Your task to perform on an android device: check battery use Image 0: 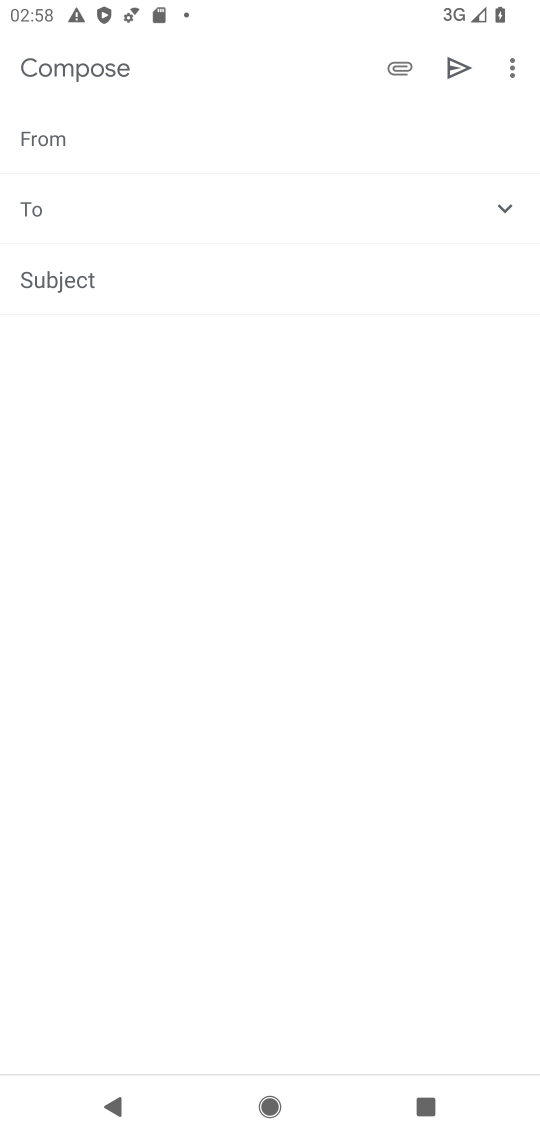
Step 0: press home button
Your task to perform on an android device: check battery use Image 1: 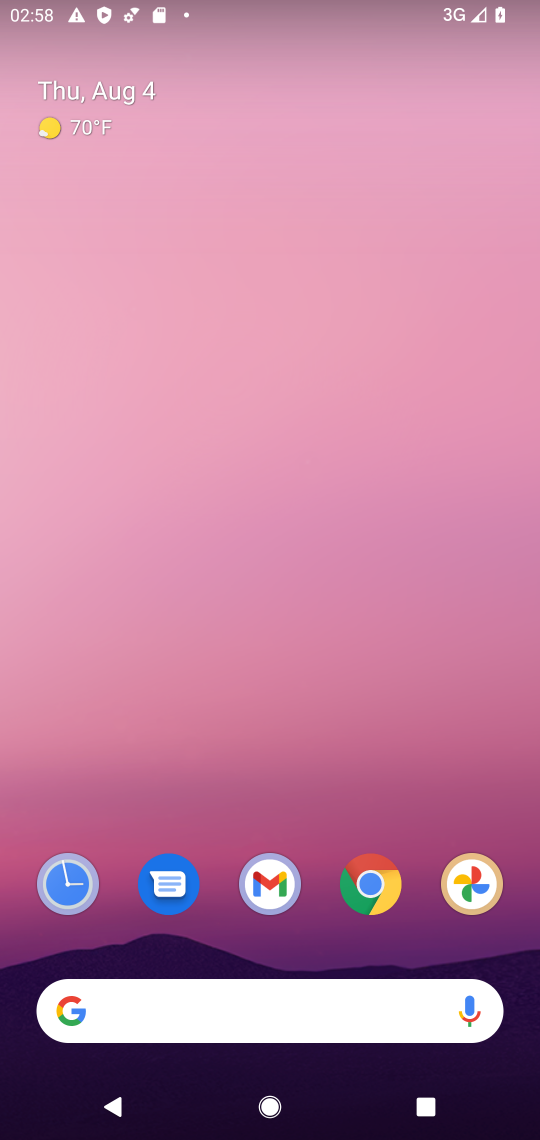
Step 1: drag from (319, 696) to (314, 154)
Your task to perform on an android device: check battery use Image 2: 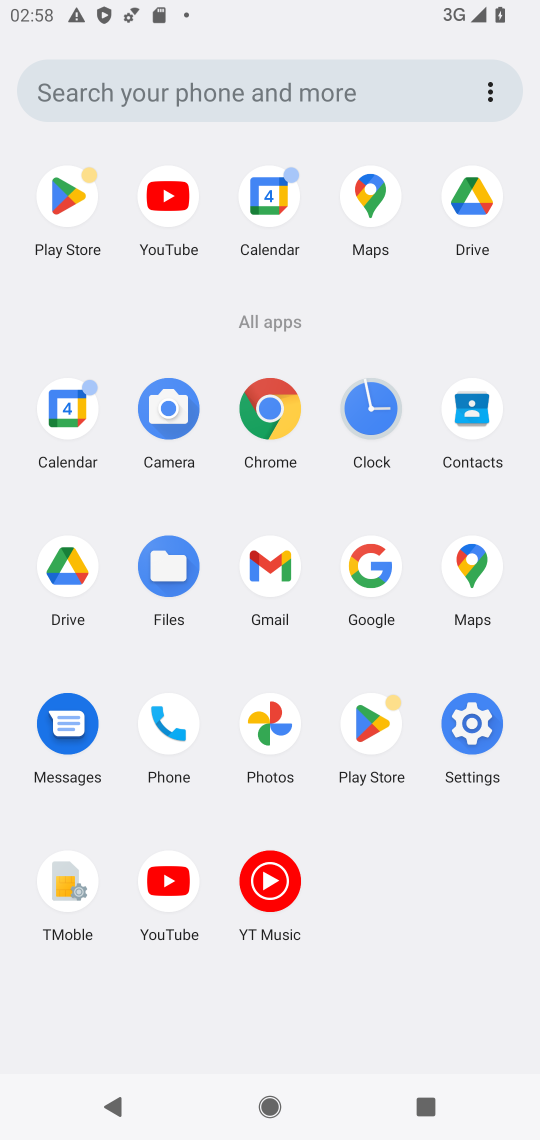
Step 2: click (486, 730)
Your task to perform on an android device: check battery use Image 3: 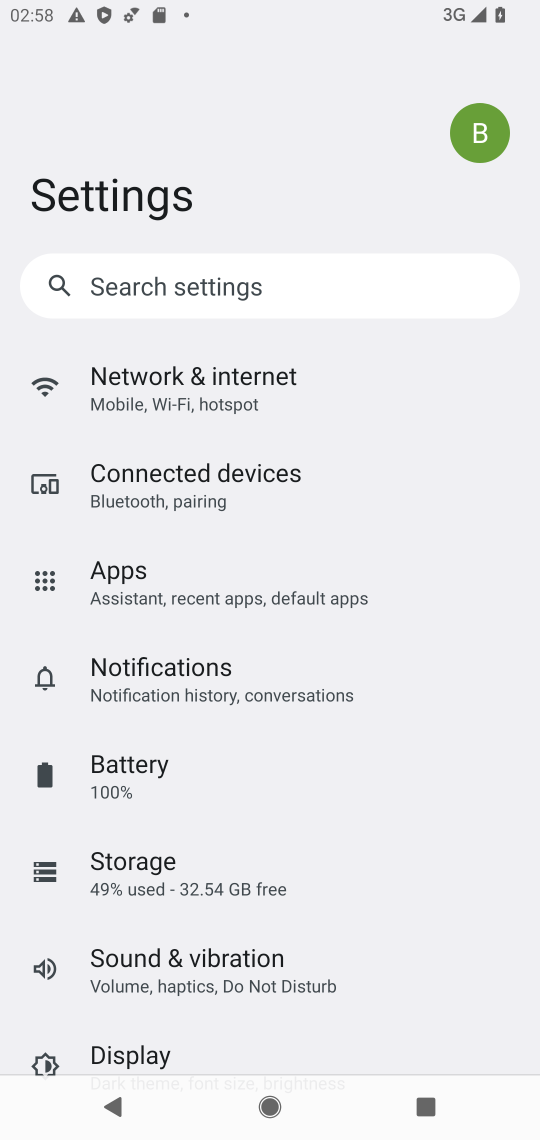
Step 3: drag from (416, 859) to (441, 760)
Your task to perform on an android device: check battery use Image 4: 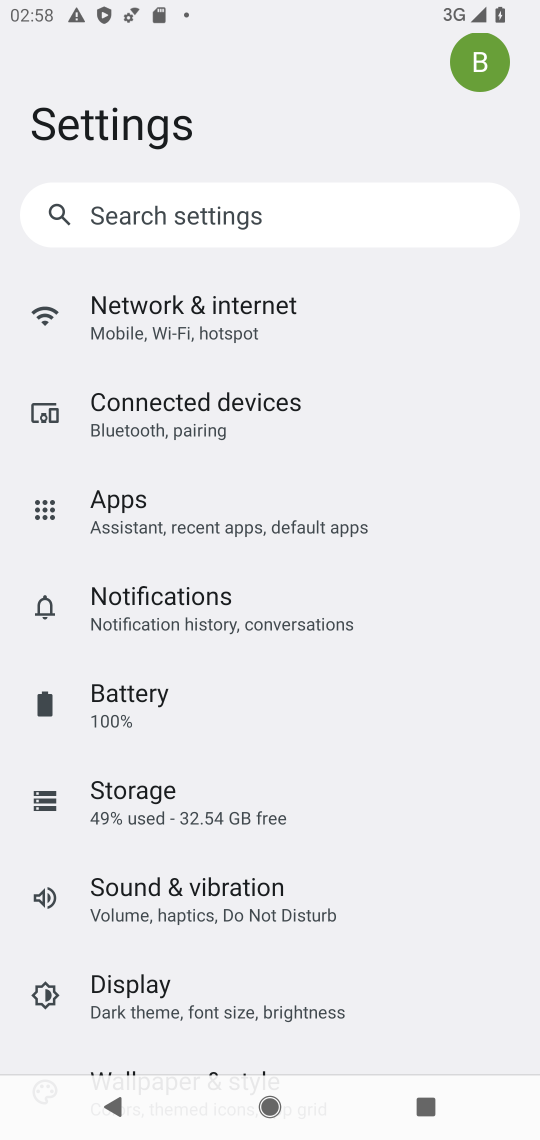
Step 4: drag from (467, 931) to (472, 746)
Your task to perform on an android device: check battery use Image 5: 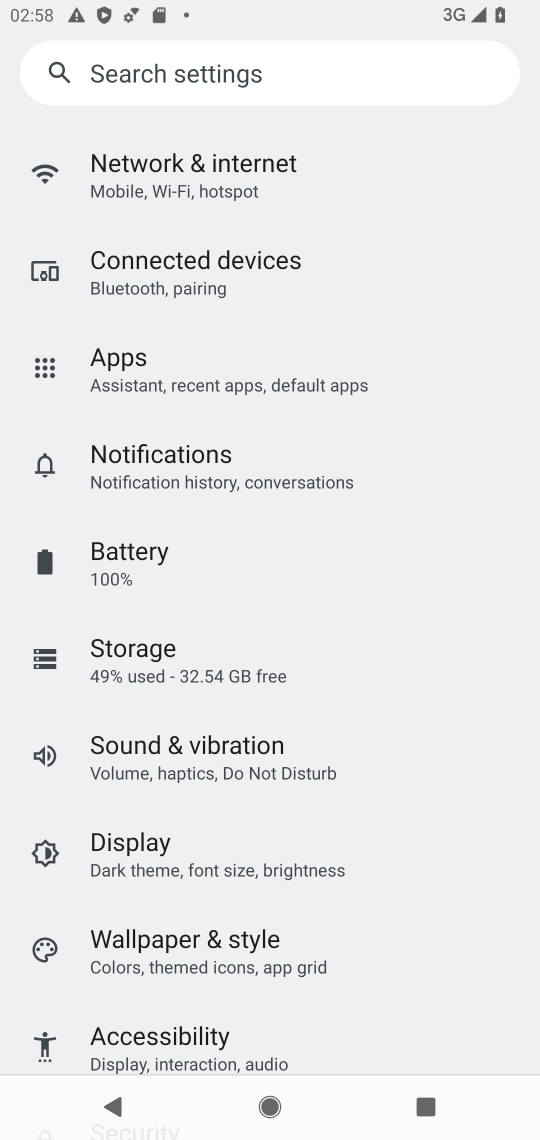
Step 5: drag from (446, 965) to (446, 833)
Your task to perform on an android device: check battery use Image 6: 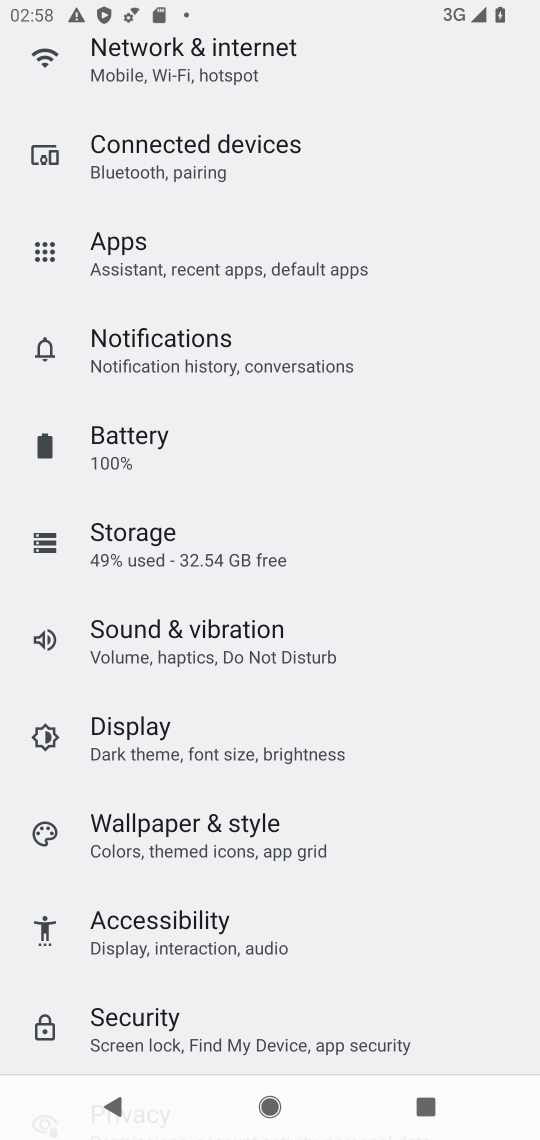
Step 6: drag from (434, 929) to (430, 782)
Your task to perform on an android device: check battery use Image 7: 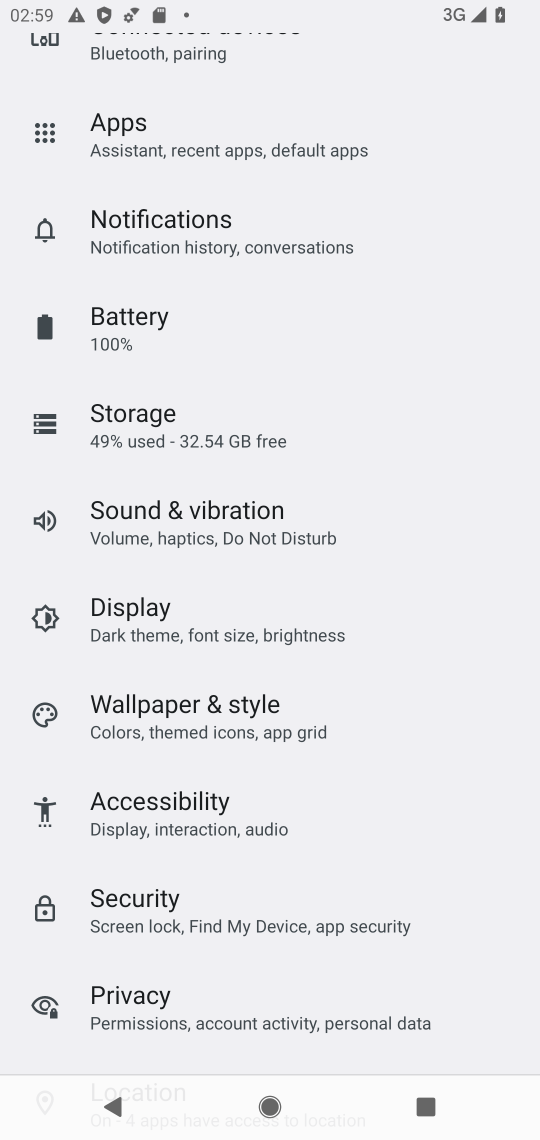
Step 7: drag from (438, 833) to (429, 652)
Your task to perform on an android device: check battery use Image 8: 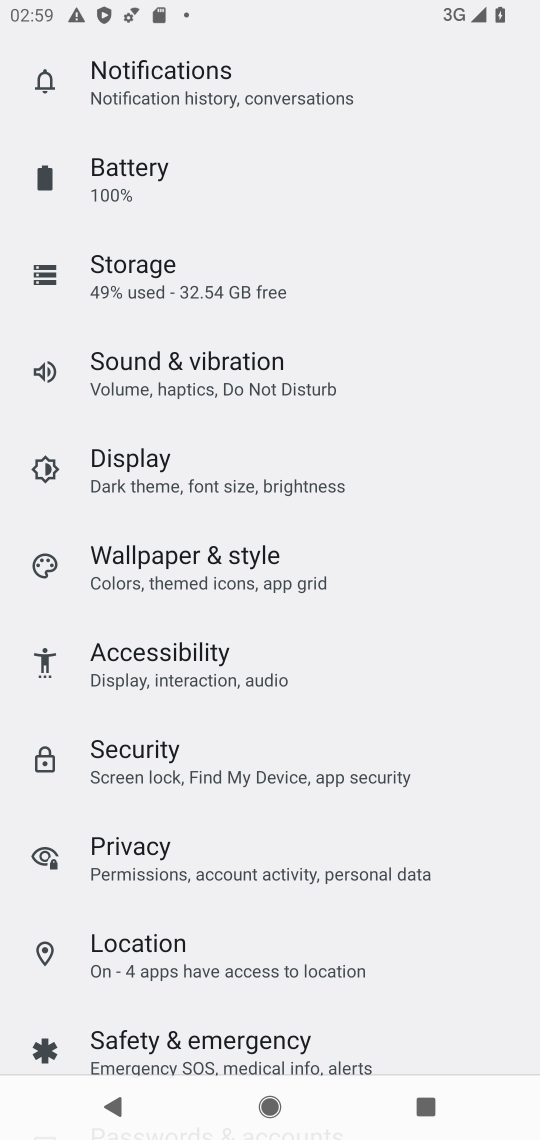
Step 8: drag from (473, 930) to (470, 720)
Your task to perform on an android device: check battery use Image 9: 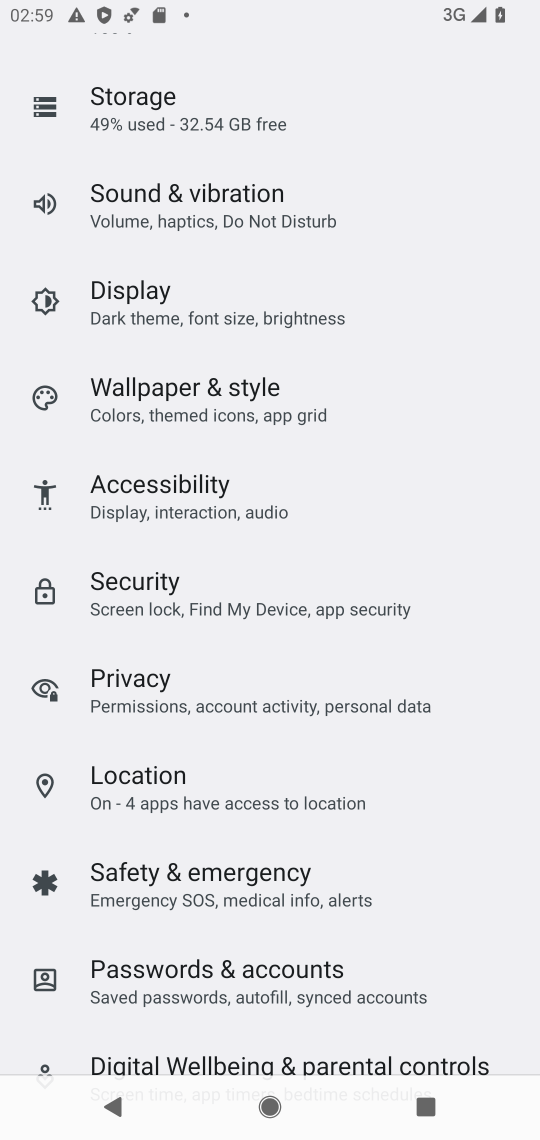
Step 9: drag from (443, 963) to (465, 737)
Your task to perform on an android device: check battery use Image 10: 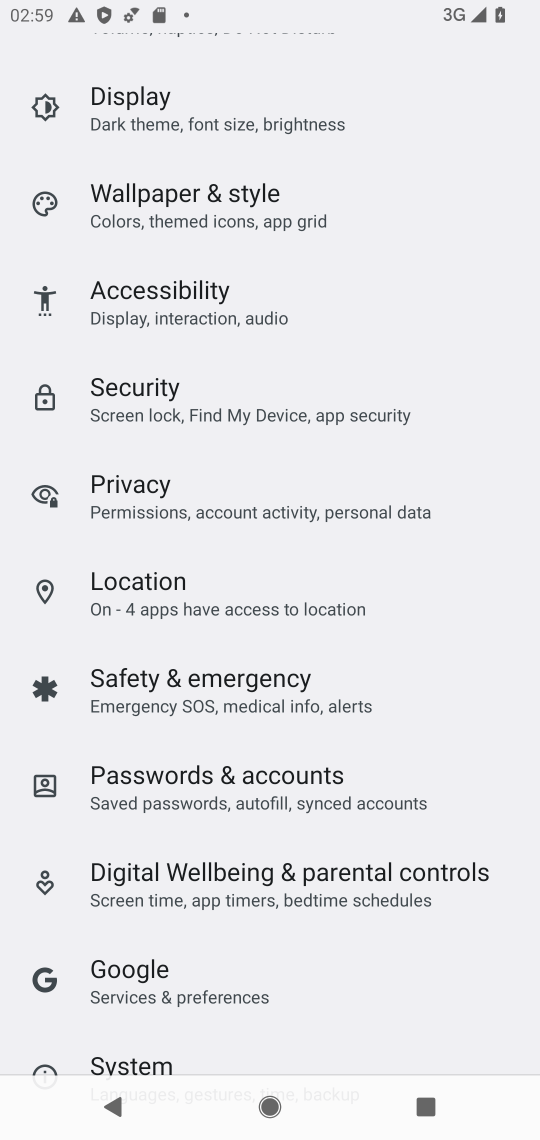
Step 10: drag from (479, 548) to (474, 743)
Your task to perform on an android device: check battery use Image 11: 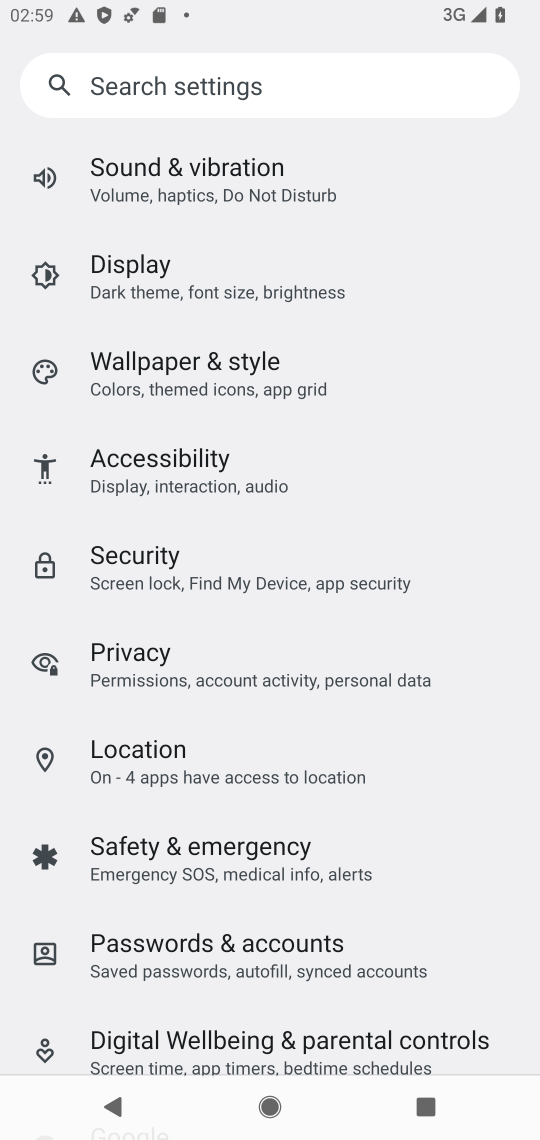
Step 11: drag from (485, 577) to (486, 787)
Your task to perform on an android device: check battery use Image 12: 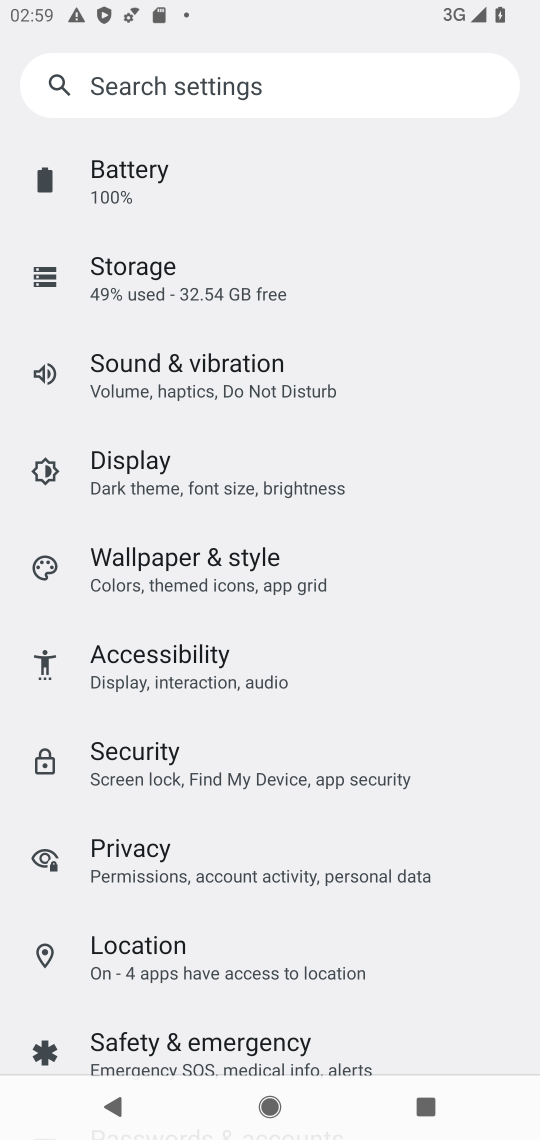
Step 12: drag from (463, 557) to (453, 736)
Your task to perform on an android device: check battery use Image 13: 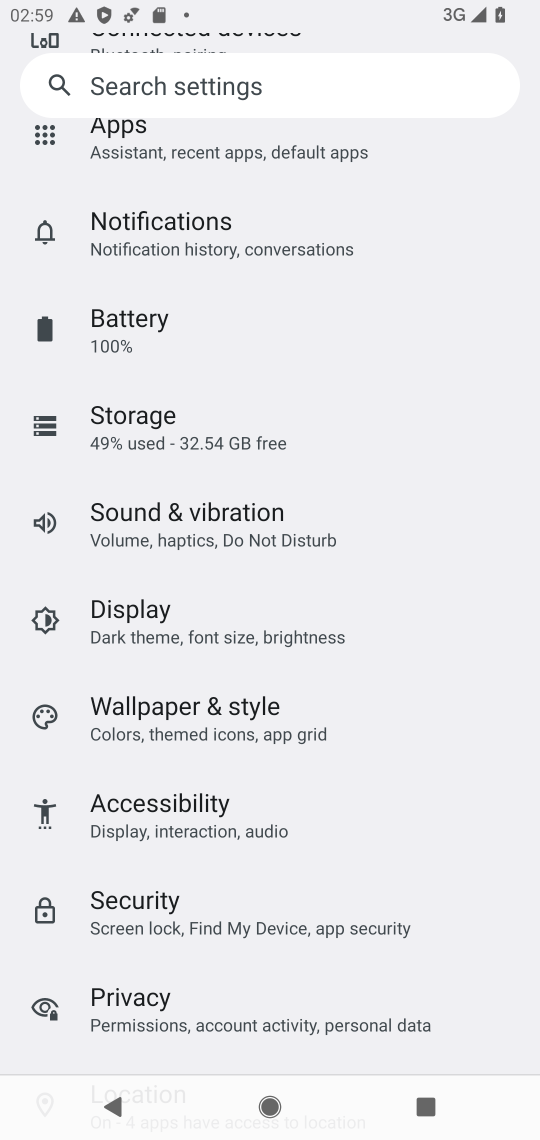
Step 13: drag from (440, 564) to (428, 727)
Your task to perform on an android device: check battery use Image 14: 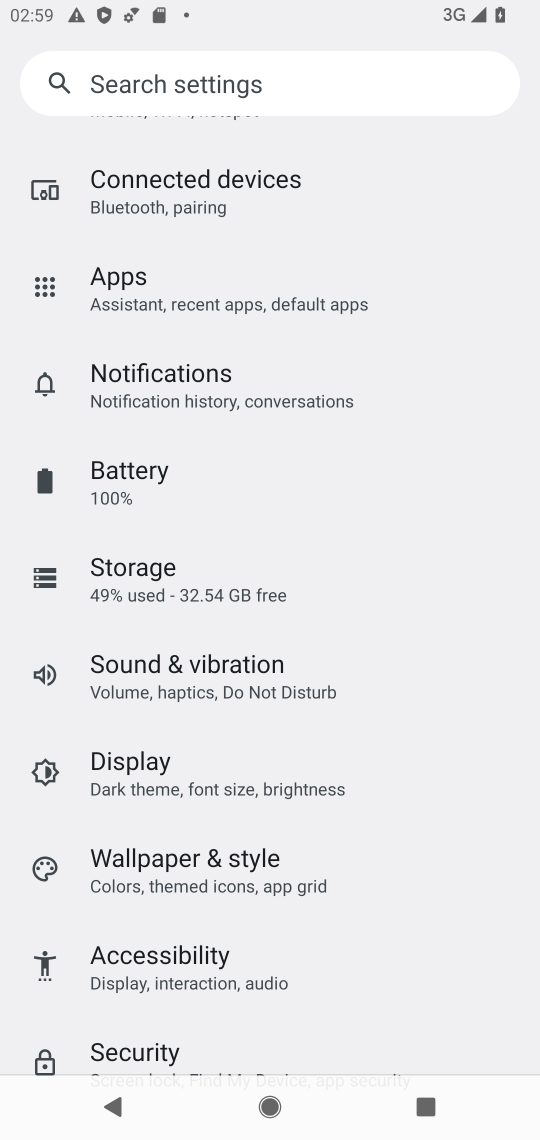
Step 14: drag from (431, 460) to (445, 742)
Your task to perform on an android device: check battery use Image 15: 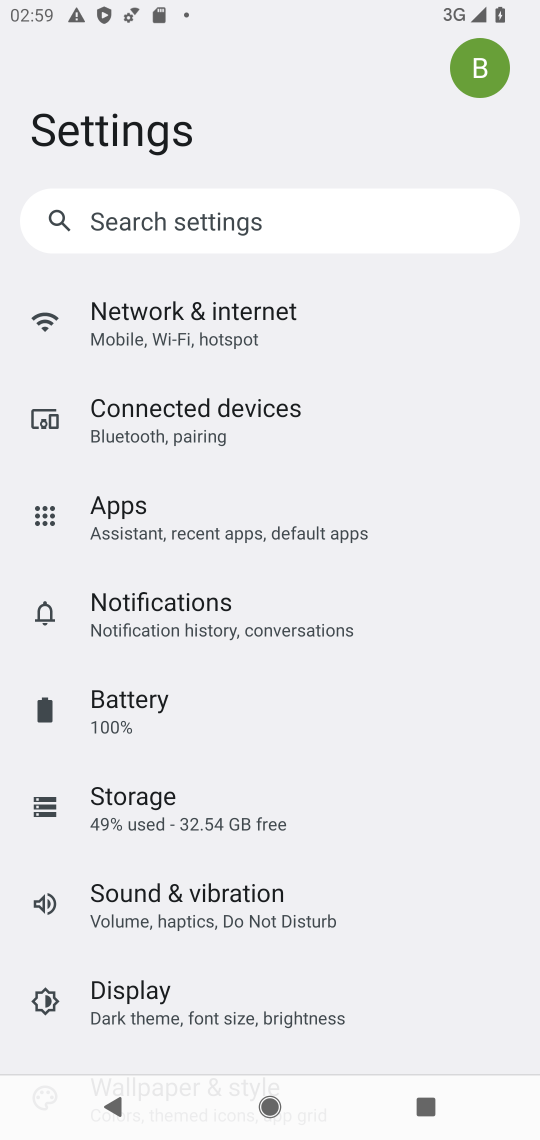
Step 15: click (219, 694)
Your task to perform on an android device: check battery use Image 16: 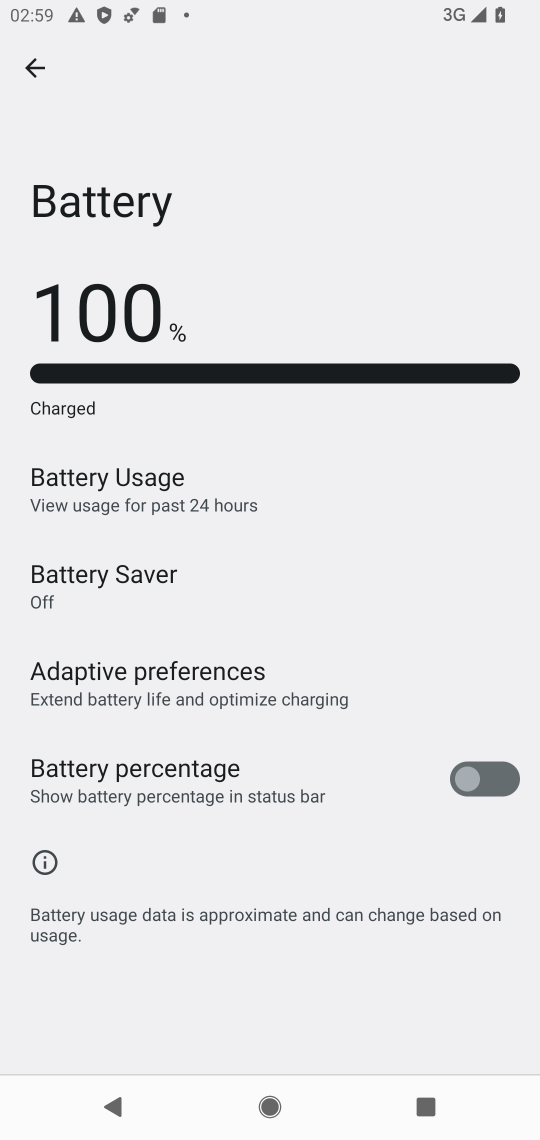
Step 16: drag from (250, 847) to (277, 556)
Your task to perform on an android device: check battery use Image 17: 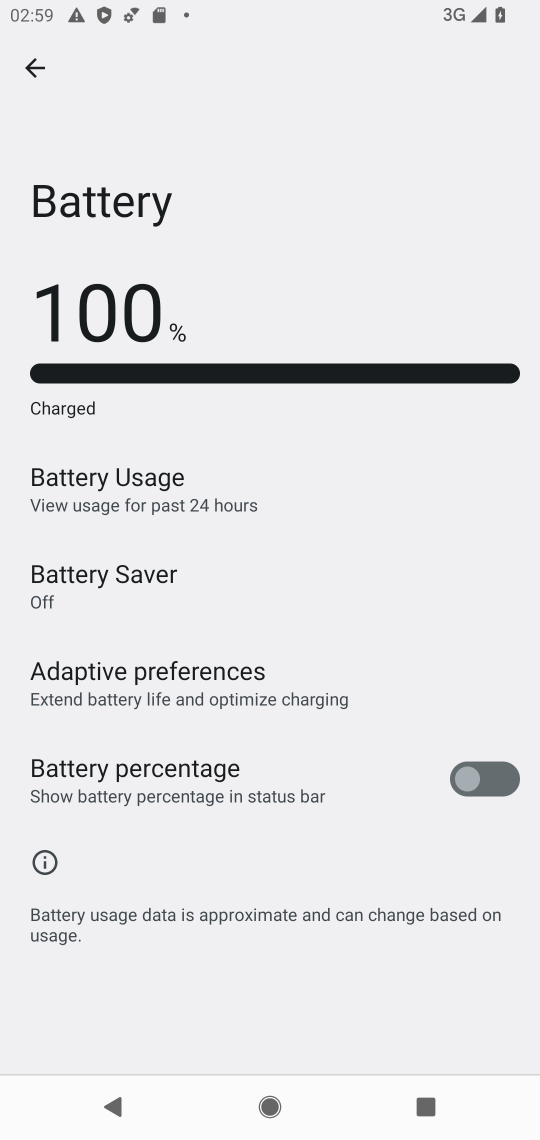
Step 17: click (233, 489)
Your task to perform on an android device: check battery use Image 18: 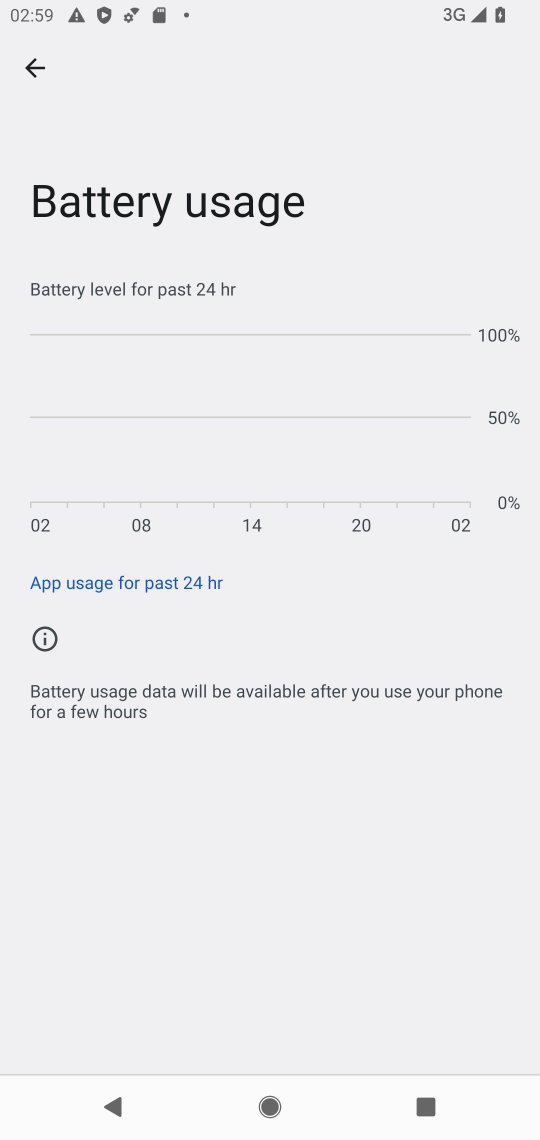
Step 18: task complete